Your task to perform on an android device: Open settings Image 0: 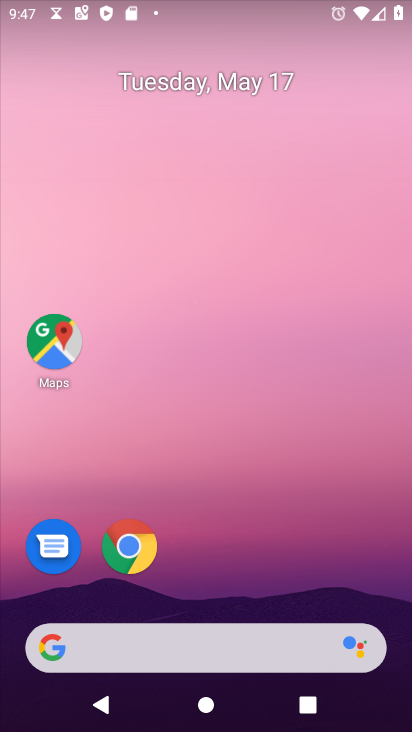
Step 0: drag from (238, 607) to (260, 43)
Your task to perform on an android device: Open settings Image 1: 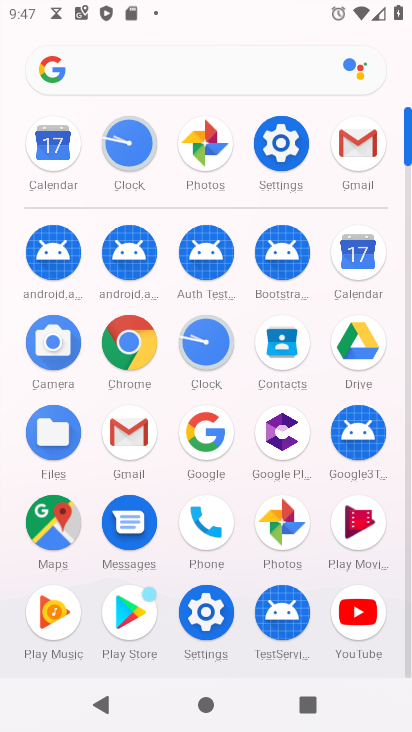
Step 1: click (284, 138)
Your task to perform on an android device: Open settings Image 2: 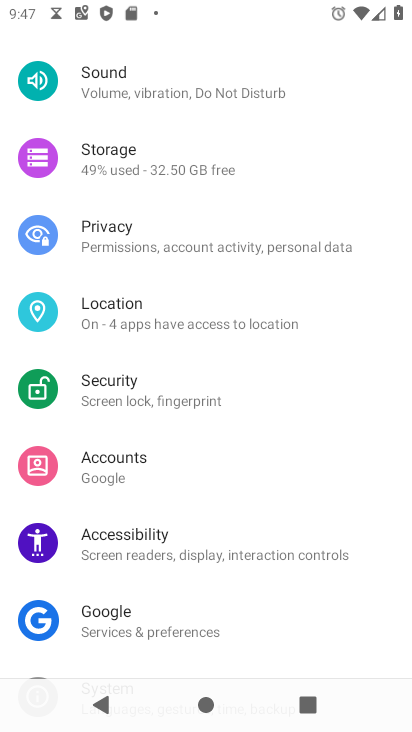
Step 2: task complete